Your task to perform on an android device: Search for "macbook air" on amazon, select the first entry, add it to the cart, then select checkout. Image 0: 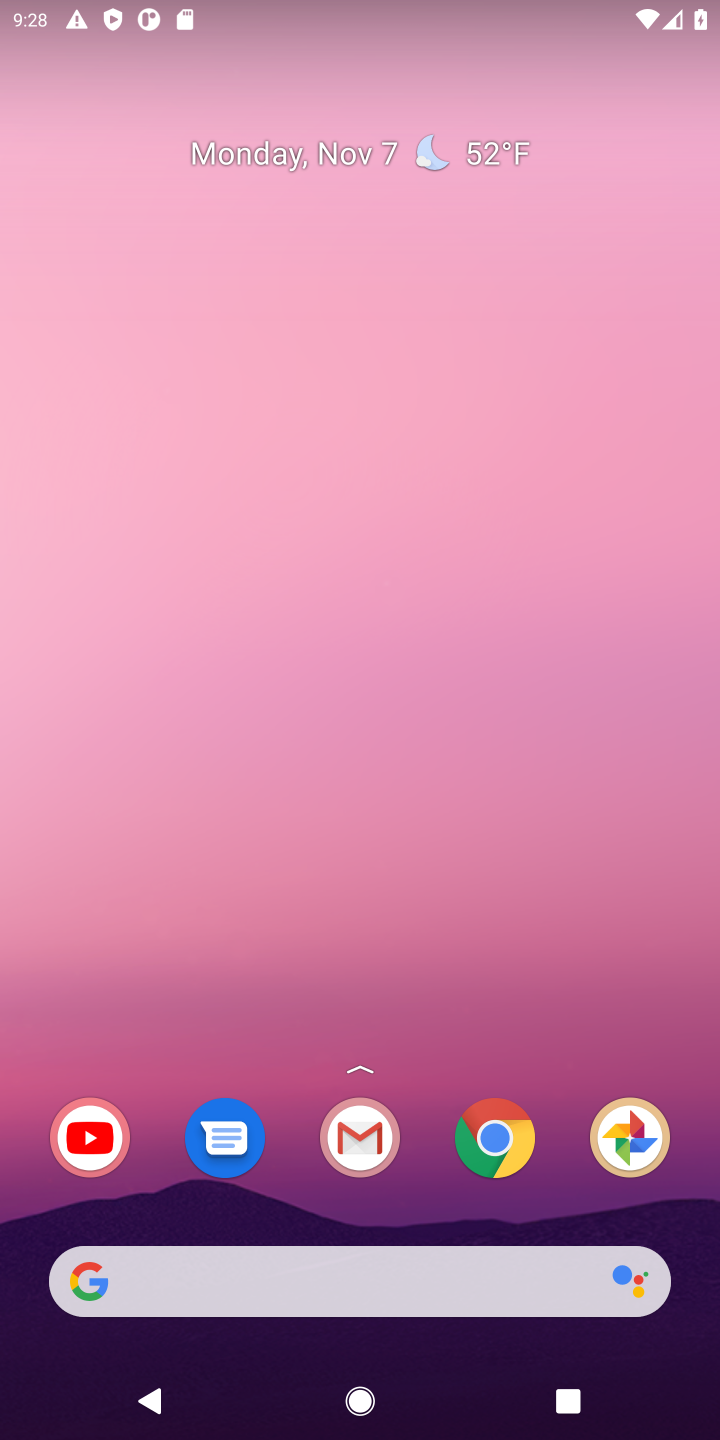
Step 0: click (486, 1144)
Your task to perform on an android device: Search for "macbook air" on amazon, select the first entry, add it to the cart, then select checkout. Image 1: 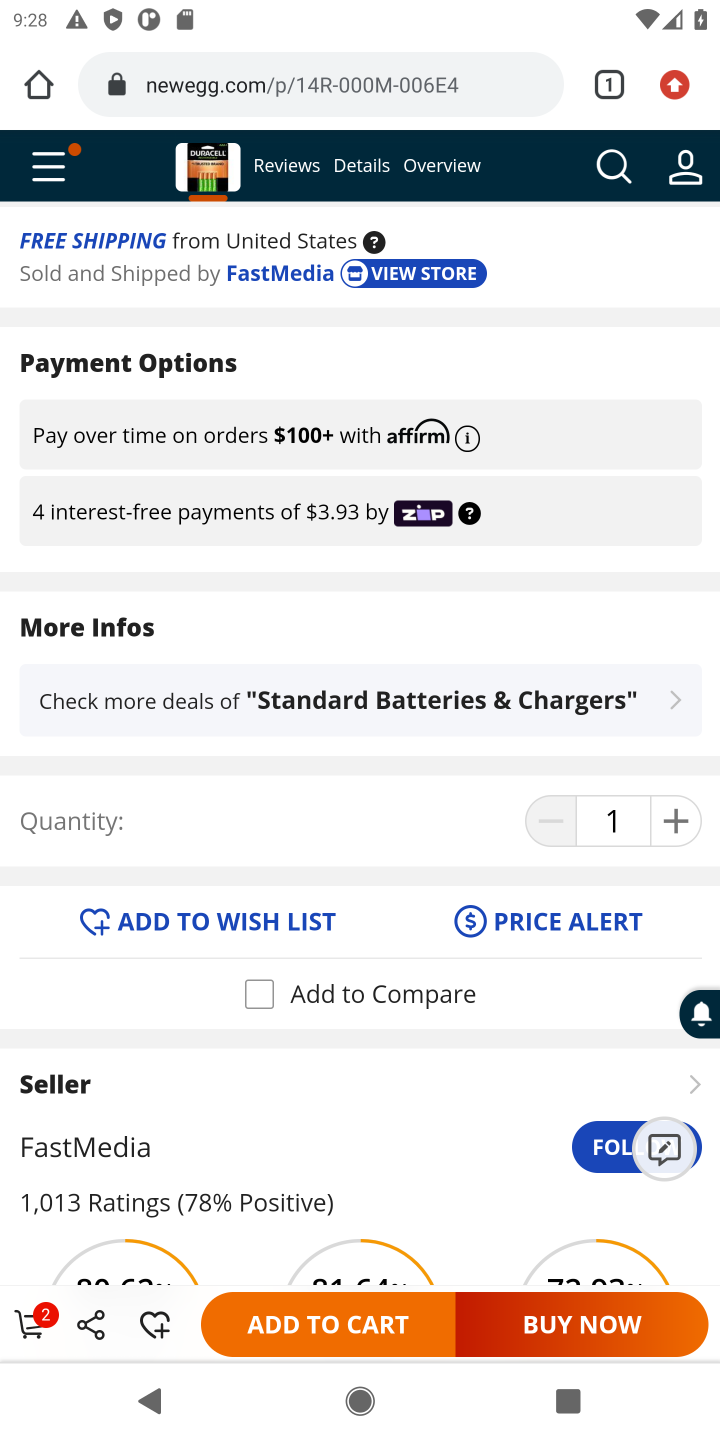
Step 1: click (297, 72)
Your task to perform on an android device: Search for "macbook air" on amazon, select the first entry, add it to the cart, then select checkout. Image 2: 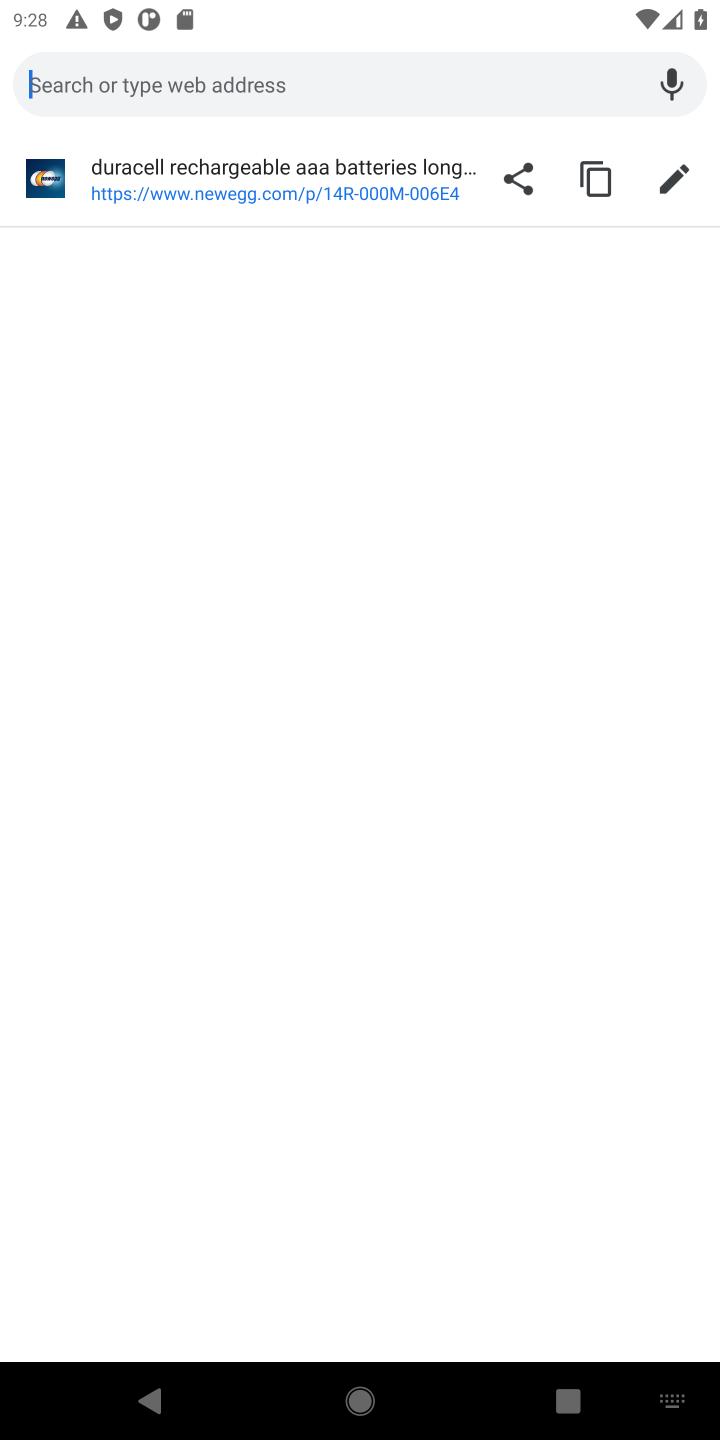
Step 2: type "amazon"
Your task to perform on an android device: Search for "macbook air" on amazon, select the first entry, add it to the cart, then select checkout. Image 3: 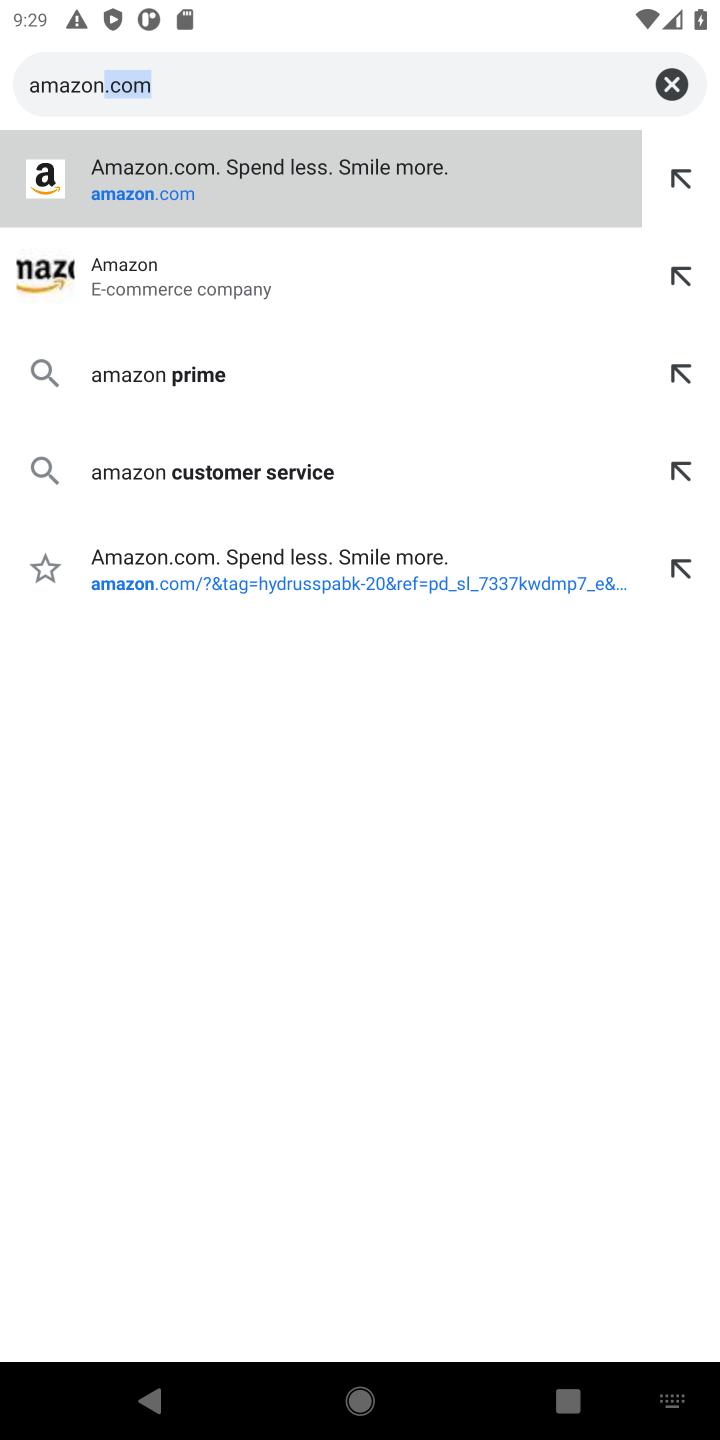
Step 3: click (162, 180)
Your task to perform on an android device: Search for "macbook air" on amazon, select the first entry, add it to the cart, then select checkout. Image 4: 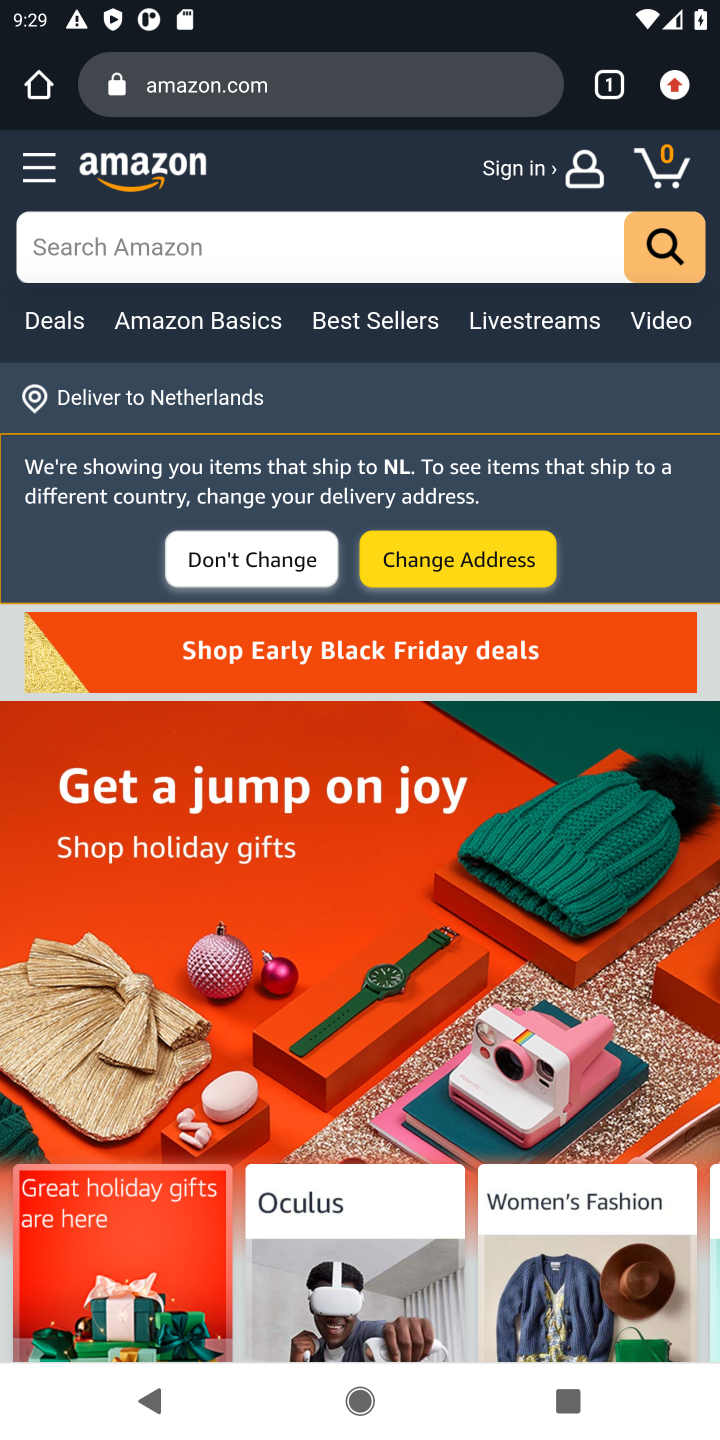
Step 4: click (101, 249)
Your task to perform on an android device: Search for "macbook air" on amazon, select the first entry, add it to the cart, then select checkout. Image 5: 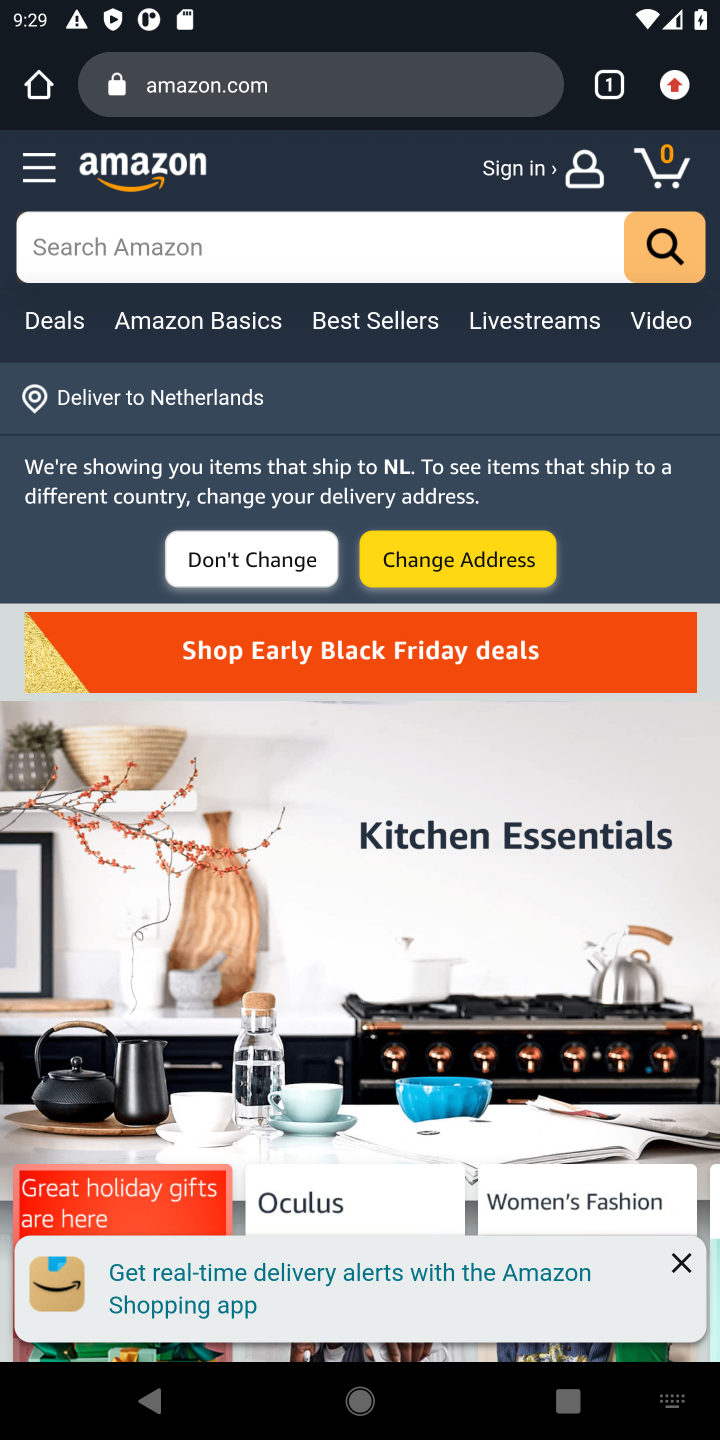
Step 5: type "macbook"
Your task to perform on an android device: Search for "macbook air" on amazon, select the first entry, add it to the cart, then select checkout. Image 6: 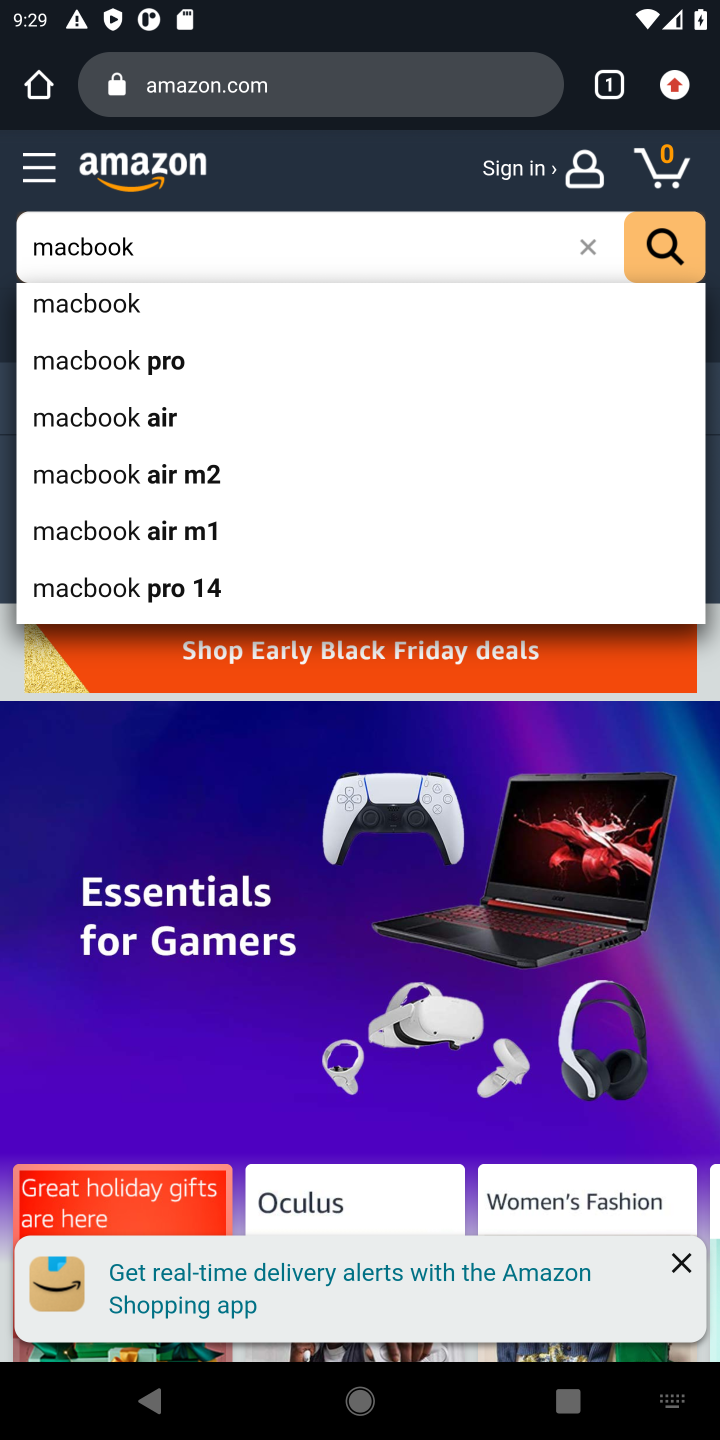
Step 6: click (123, 298)
Your task to perform on an android device: Search for "macbook air" on amazon, select the first entry, add it to the cart, then select checkout. Image 7: 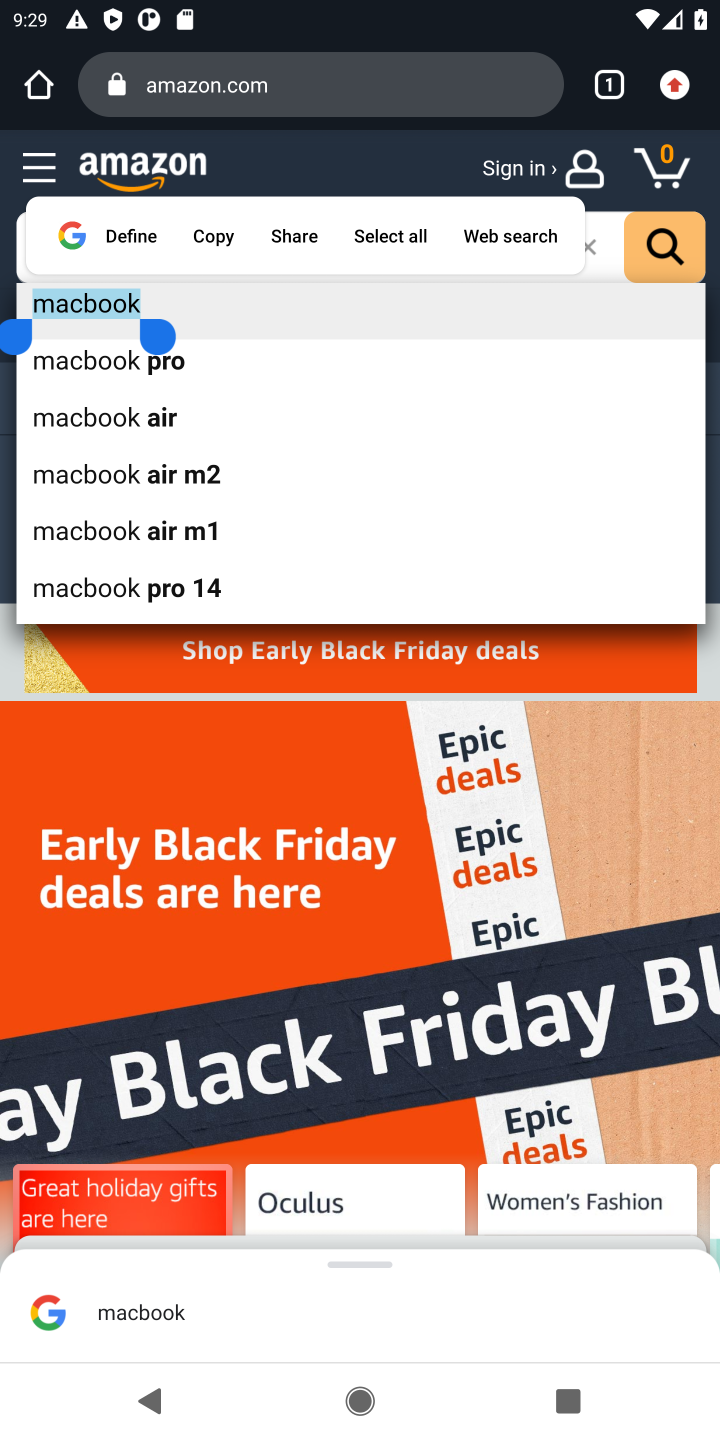
Step 7: click (86, 353)
Your task to perform on an android device: Search for "macbook air" on amazon, select the first entry, add it to the cart, then select checkout. Image 8: 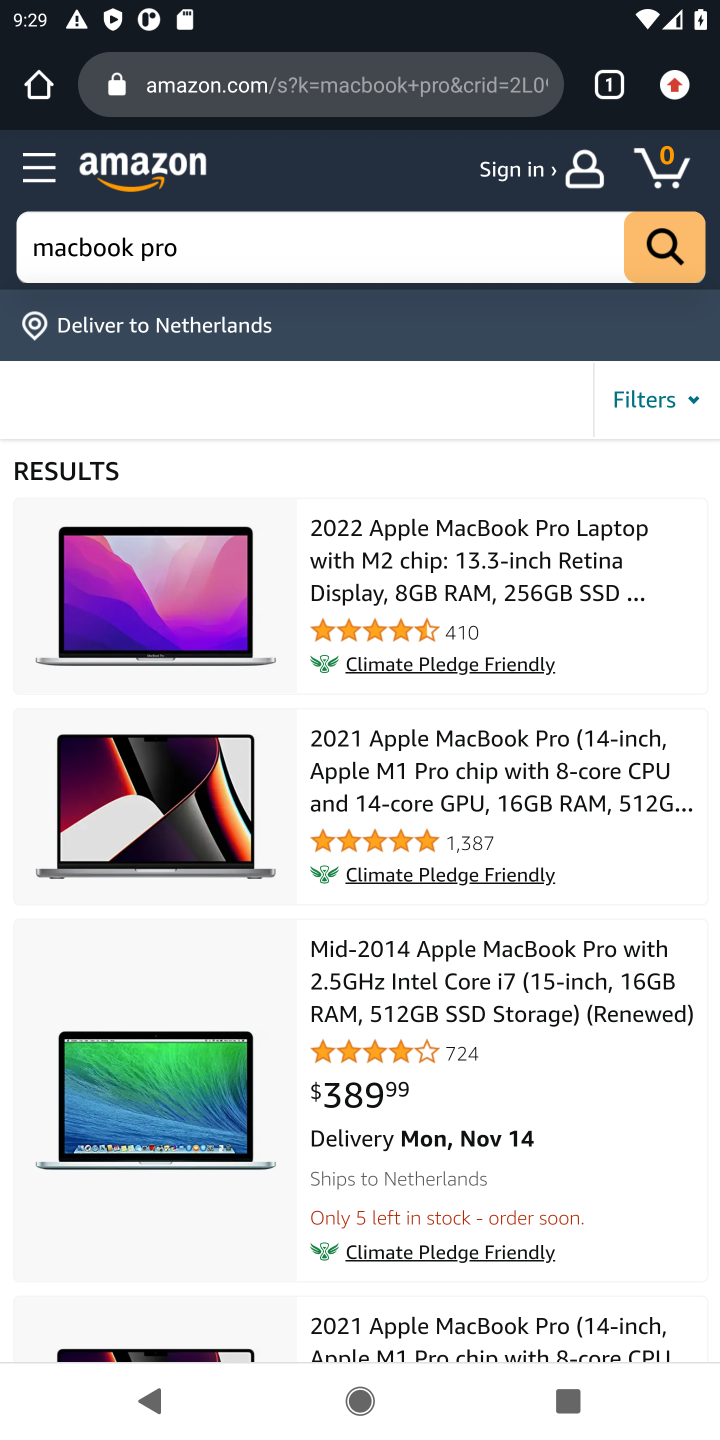
Step 8: click (457, 758)
Your task to perform on an android device: Search for "macbook air" on amazon, select the first entry, add it to the cart, then select checkout. Image 9: 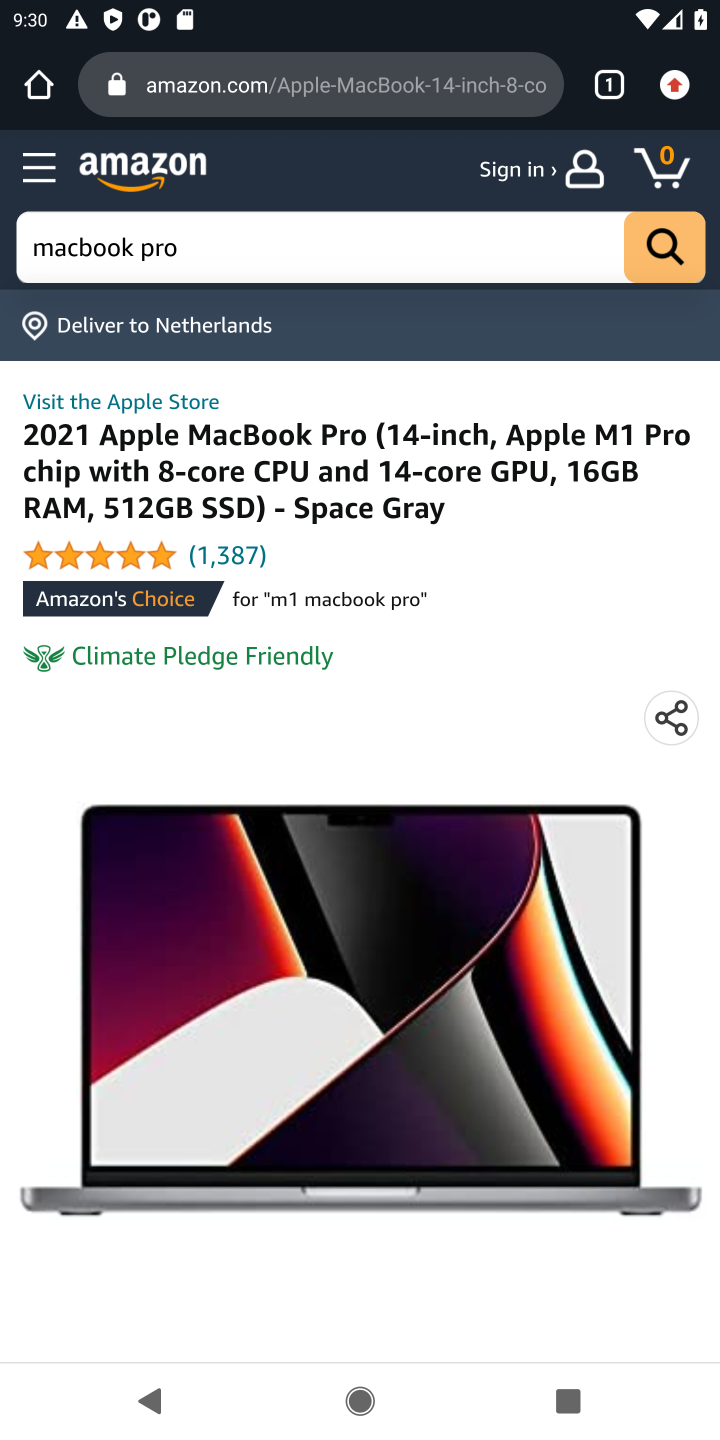
Step 9: task complete